Your task to perform on an android device: see sites visited before in the chrome app Image 0: 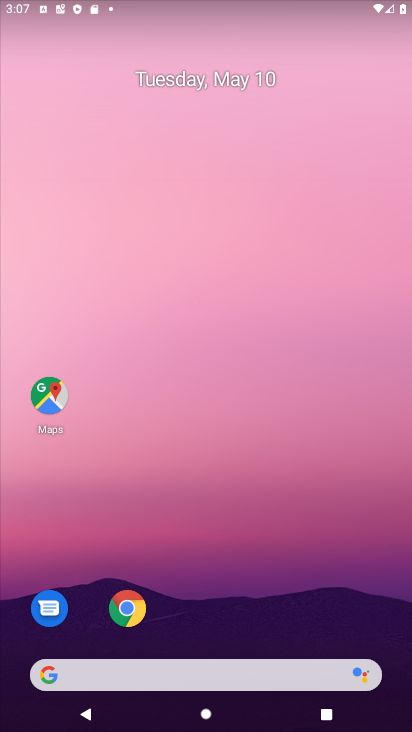
Step 0: click (129, 608)
Your task to perform on an android device: see sites visited before in the chrome app Image 1: 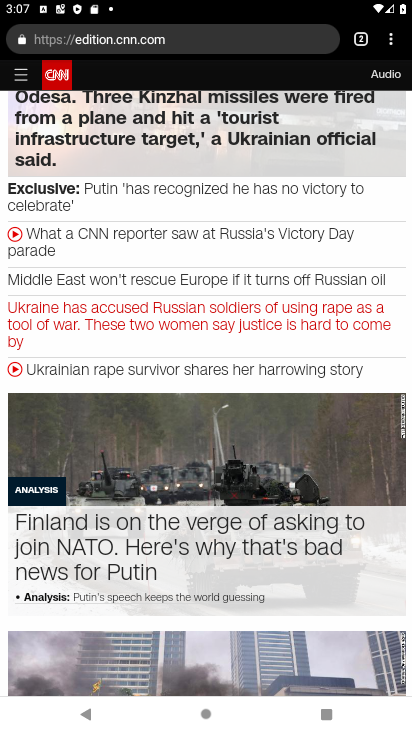
Step 1: click (393, 41)
Your task to perform on an android device: see sites visited before in the chrome app Image 2: 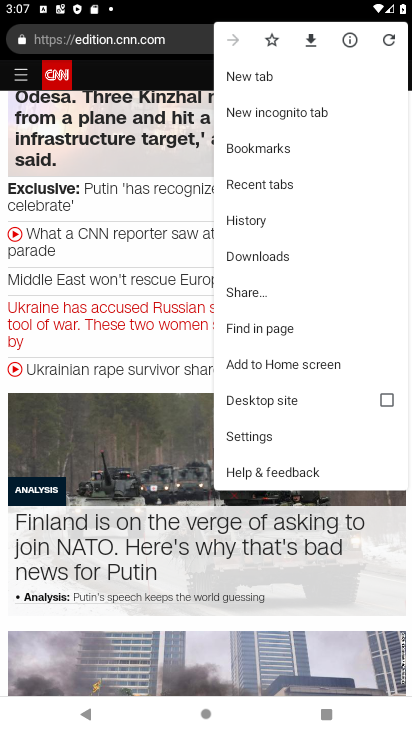
Step 2: click (255, 214)
Your task to perform on an android device: see sites visited before in the chrome app Image 3: 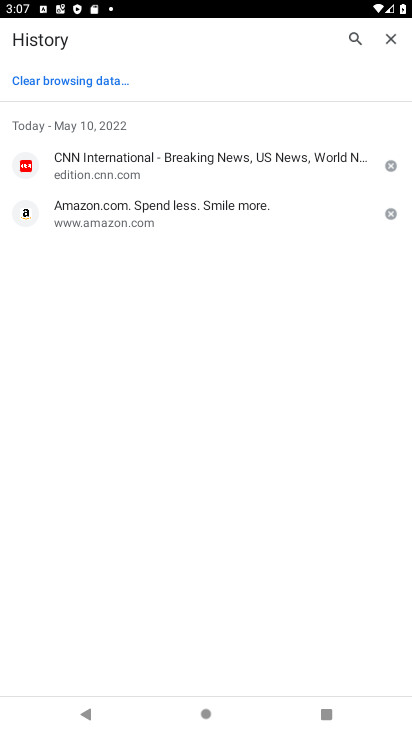
Step 3: task complete